Your task to perform on an android device: Go to ESPN.com Image 0: 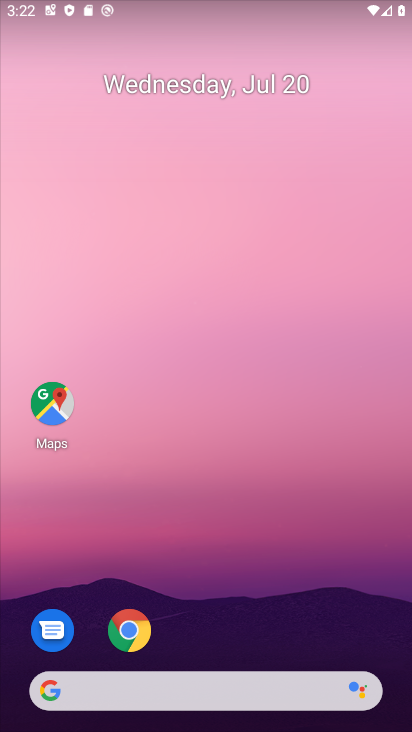
Step 0: drag from (210, 628) to (264, 80)
Your task to perform on an android device: Go to ESPN.com Image 1: 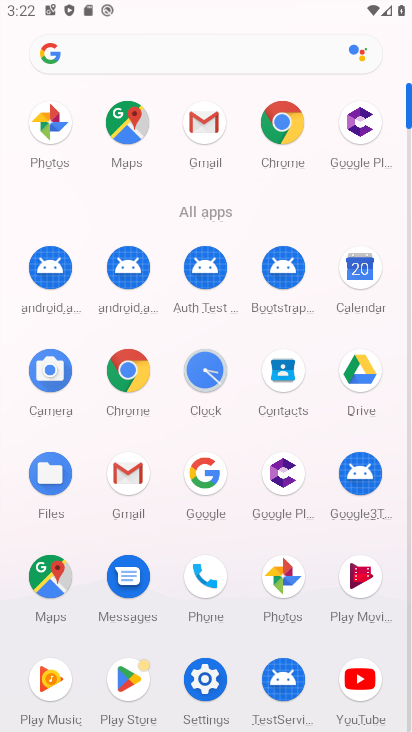
Step 1: click (279, 119)
Your task to perform on an android device: Go to ESPN.com Image 2: 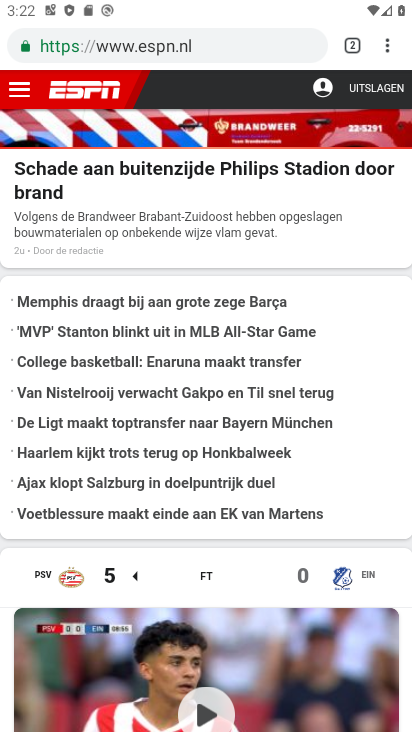
Step 2: task complete